Your task to perform on an android device: Open Chrome and go to settings Image 0: 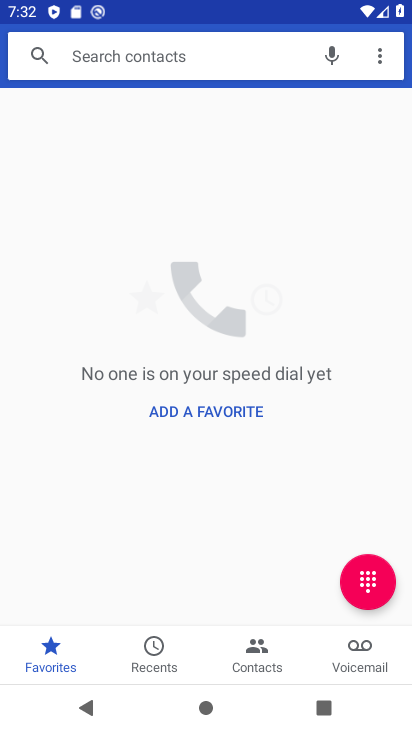
Step 0: press home button
Your task to perform on an android device: Open Chrome and go to settings Image 1: 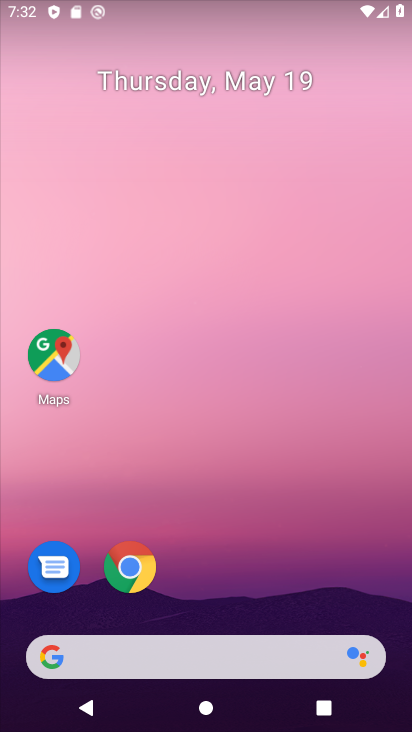
Step 1: click (135, 566)
Your task to perform on an android device: Open Chrome and go to settings Image 2: 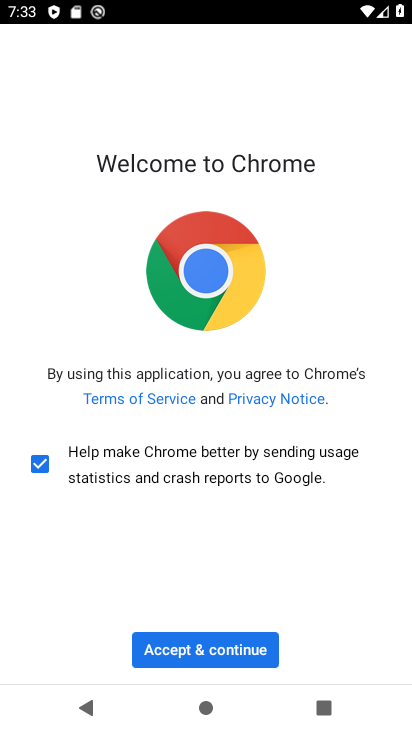
Step 2: click (232, 648)
Your task to perform on an android device: Open Chrome and go to settings Image 3: 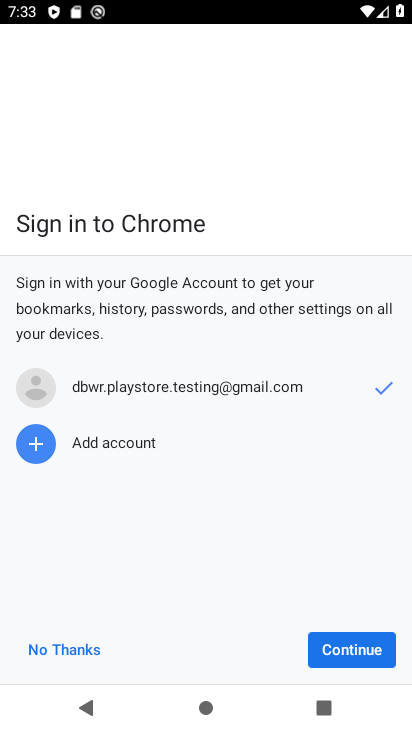
Step 3: click (383, 639)
Your task to perform on an android device: Open Chrome and go to settings Image 4: 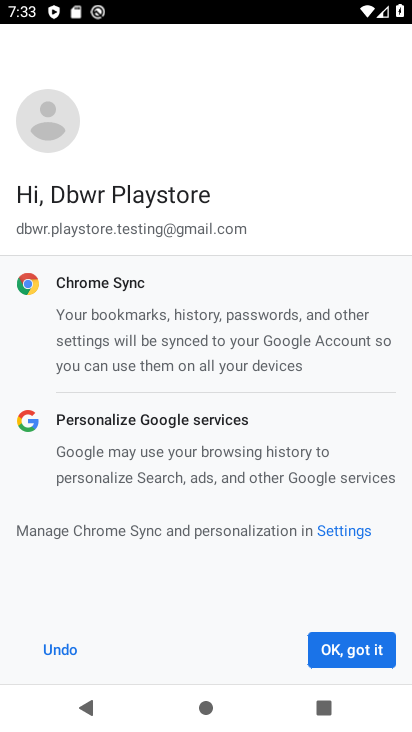
Step 4: click (383, 639)
Your task to perform on an android device: Open Chrome and go to settings Image 5: 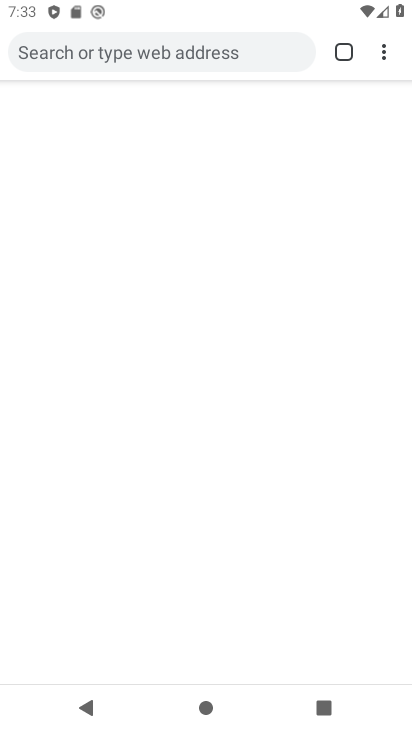
Step 5: click (389, 52)
Your task to perform on an android device: Open Chrome and go to settings Image 6: 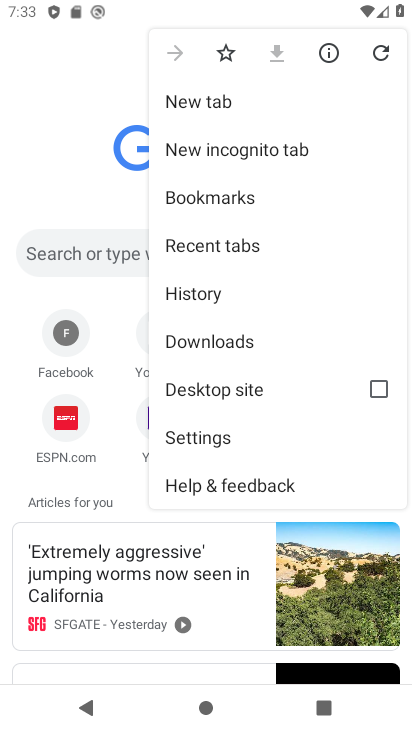
Step 6: click (192, 444)
Your task to perform on an android device: Open Chrome and go to settings Image 7: 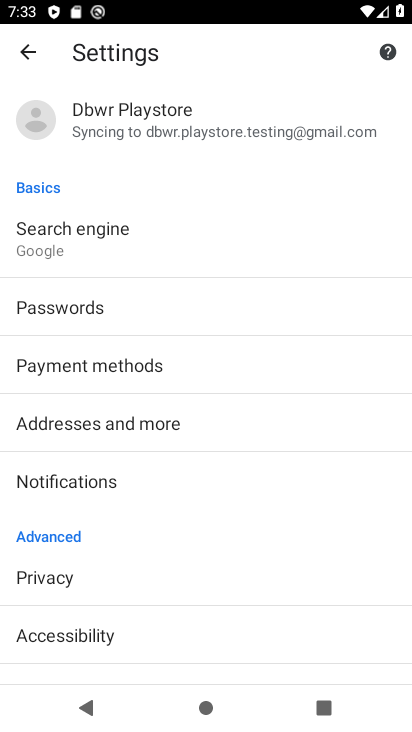
Step 7: task complete